Your task to perform on an android device: Open Yahoo.com Image 0: 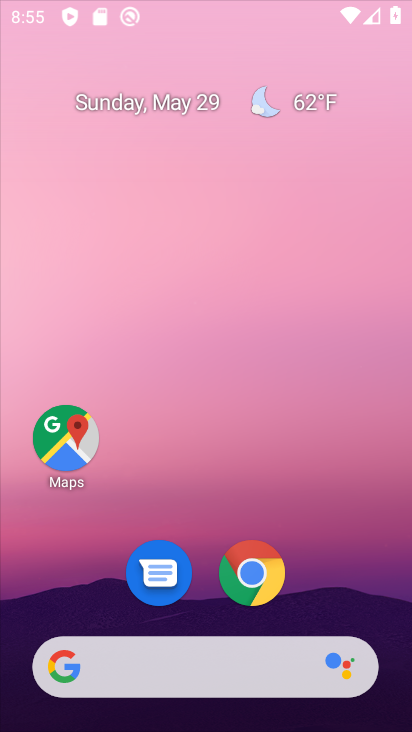
Step 0: press home button
Your task to perform on an android device: Open Yahoo.com Image 1: 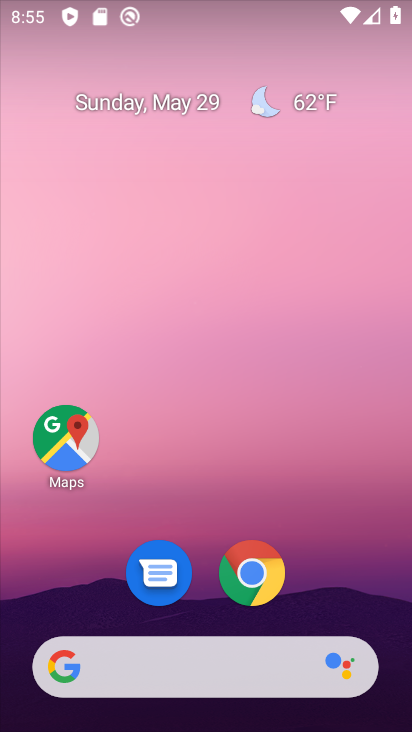
Step 1: click (62, 675)
Your task to perform on an android device: Open Yahoo.com Image 2: 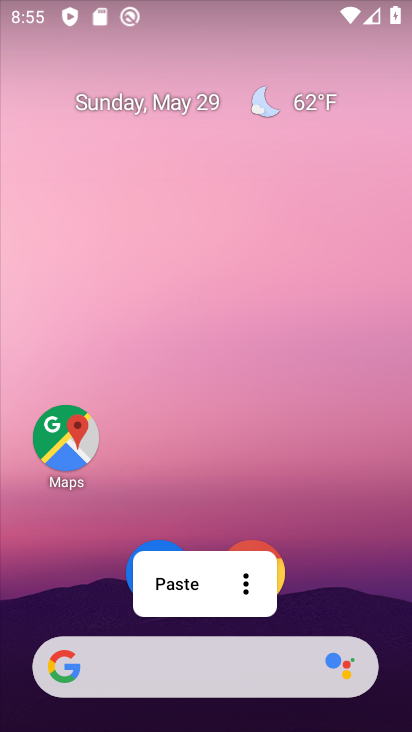
Step 2: click (62, 675)
Your task to perform on an android device: Open Yahoo.com Image 3: 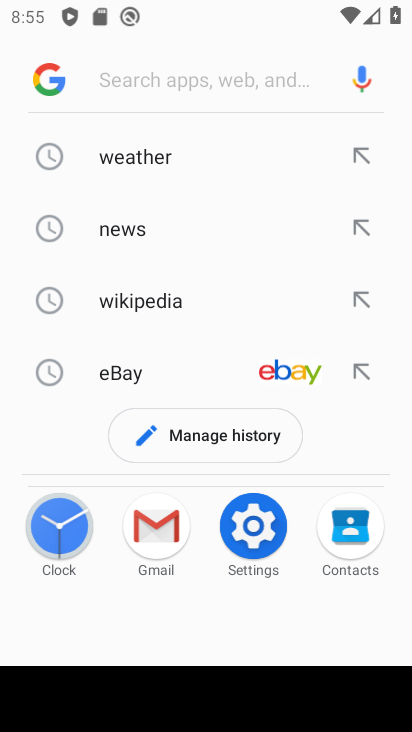
Step 3: type "Yahoo.com"
Your task to perform on an android device: Open Yahoo.com Image 4: 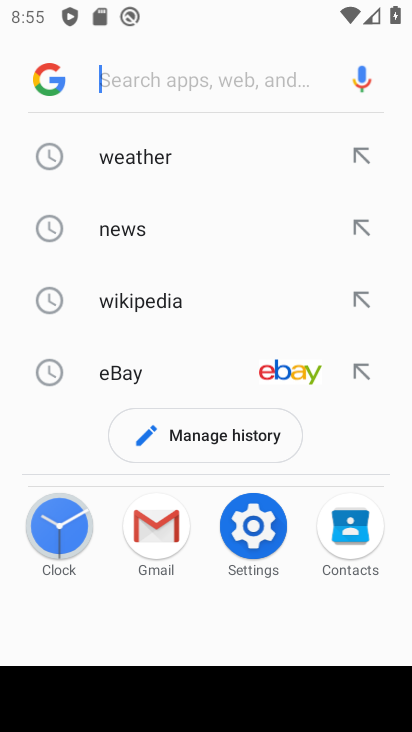
Step 4: click (155, 82)
Your task to perform on an android device: Open Yahoo.com Image 5: 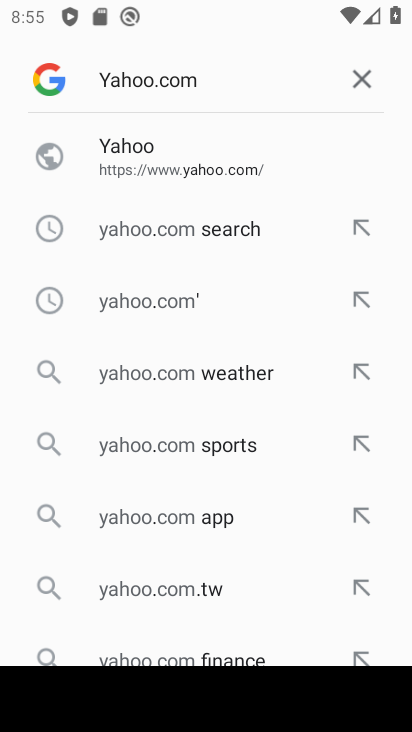
Step 5: click (119, 156)
Your task to perform on an android device: Open Yahoo.com Image 6: 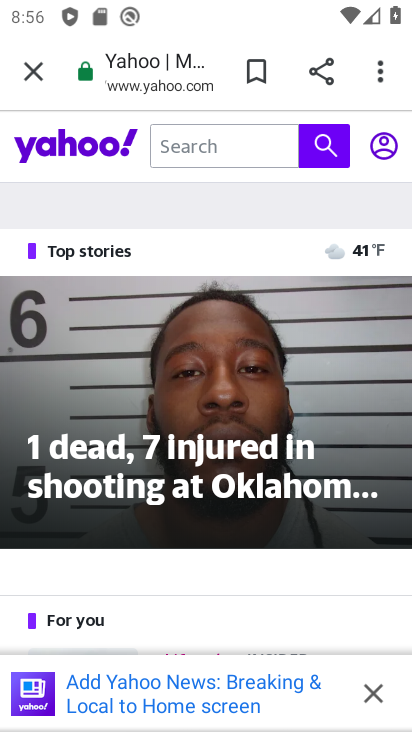
Step 6: task complete